Your task to perform on an android device: see tabs open on other devices in the chrome app Image 0: 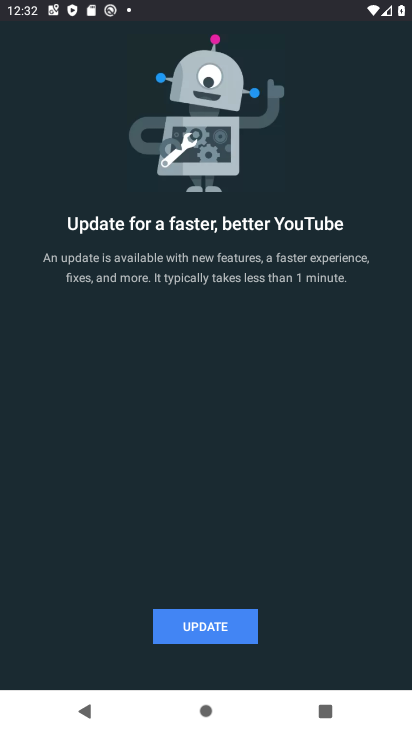
Step 0: press back button
Your task to perform on an android device: see tabs open on other devices in the chrome app Image 1: 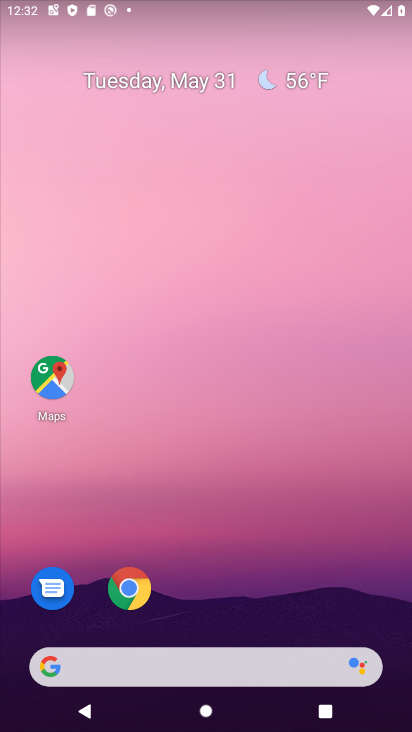
Step 1: drag from (242, 593) to (134, 388)
Your task to perform on an android device: see tabs open on other devices in the chrome app Image 2: 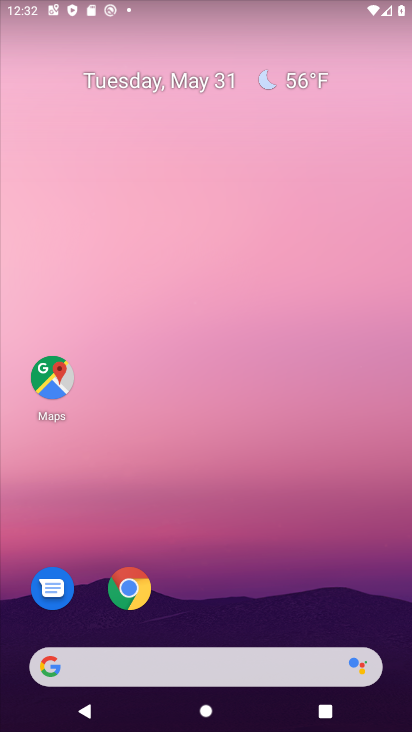
Step 2: click (121, 589)
Your task to perform on an android device: see tabs open on other devices in the chrome app Image 3: 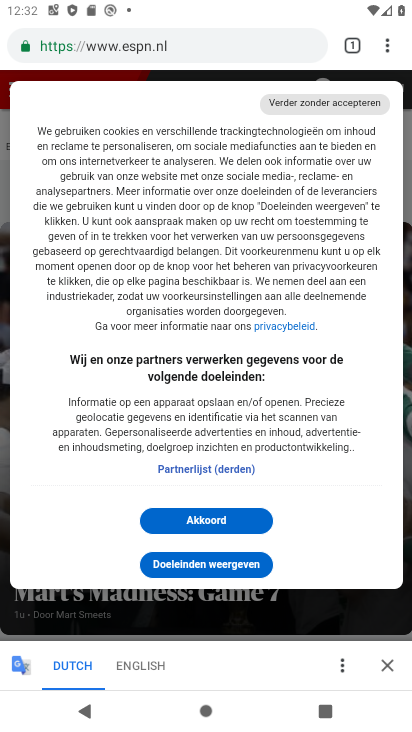
Step 3: click (385, 52)
Your task to perform on an android device: see tabs open on other devices in the chrome app Image 4: 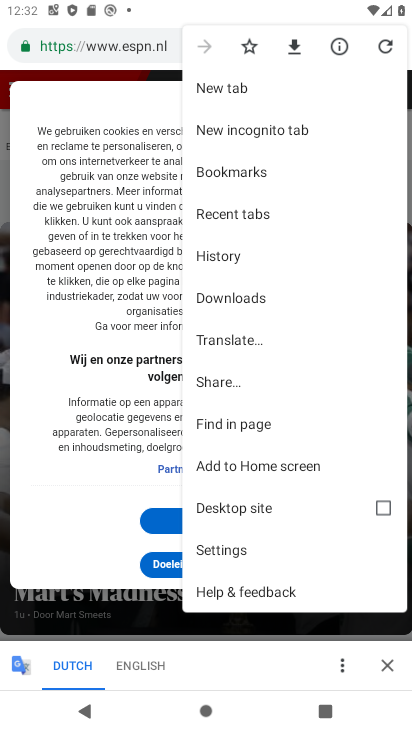
Step 4: click (255, 221)
Your task to perform on an android device: see tabs open on other devices in the chrome app Image 5: 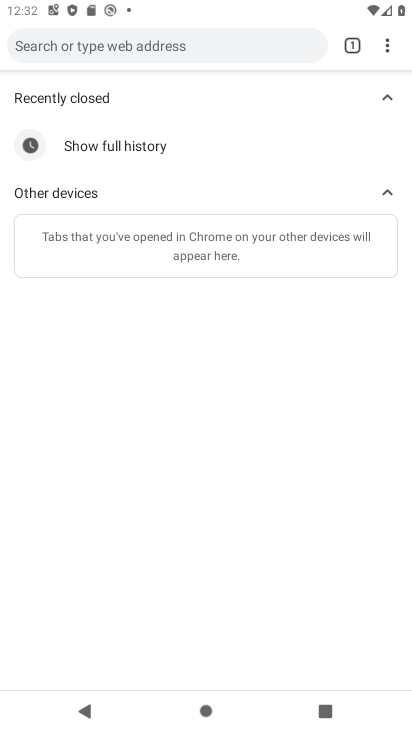
Step 5: task complete